Your task to perform on an android device: change the clock display to analog Image 0: 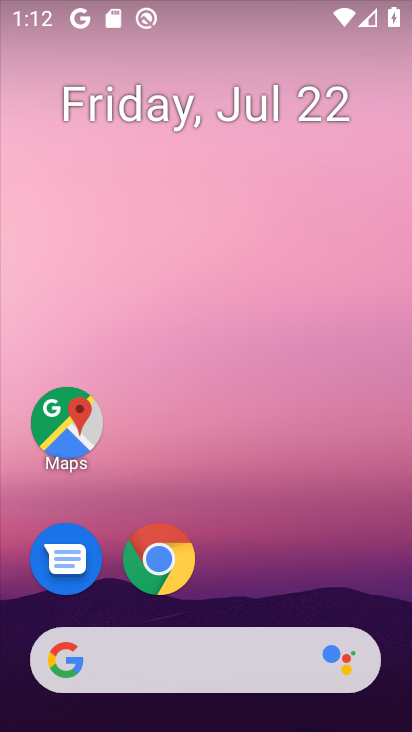
Step 0: drag from (239, 602) to (249, 27)
Your task to perform on an android device: change the clock display to analog Image 1: 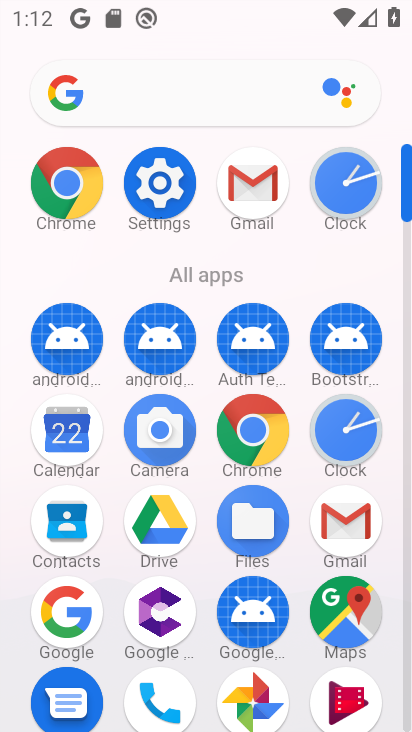
Step 1: click (345, 437)
Your task to perform on an android device: change the clock display to analog Image 2: 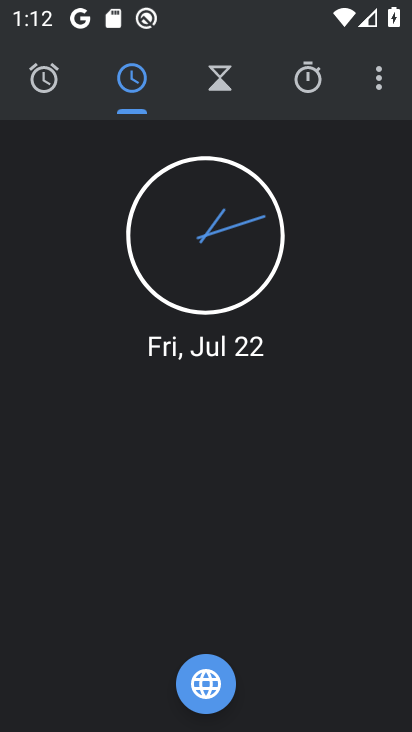
Step 2: click (381, 75)
Your task to perform on an android device: change the clock display to analog Image 3: 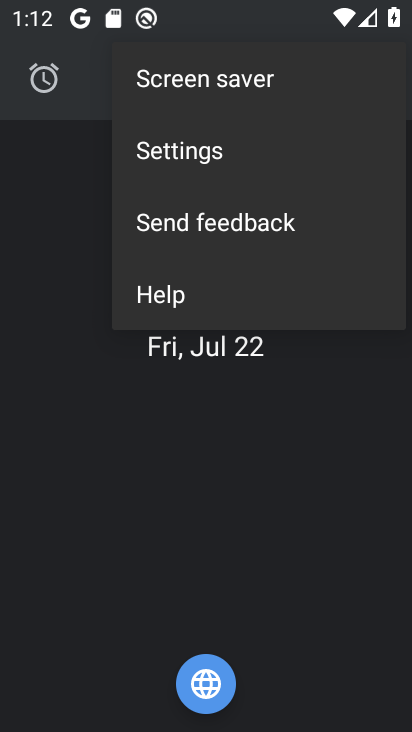
Step 3: click (186, 143)
Your task to perform on an android device: change the clock display to analog Image 4: 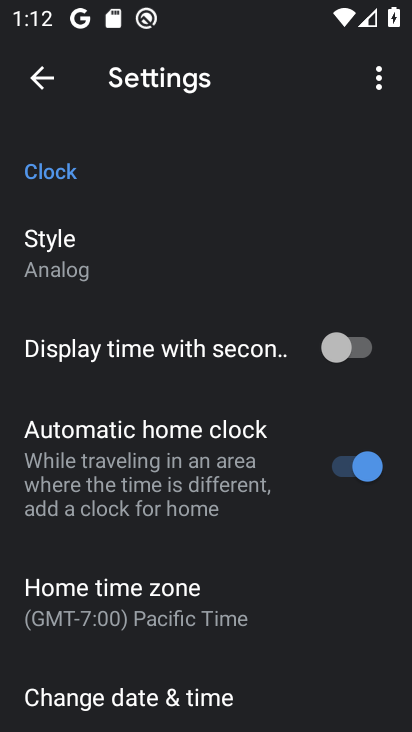
Step 4: task complete